Your task to perform on an android device: Open calendar and show me the fourth week of next month Image 0: 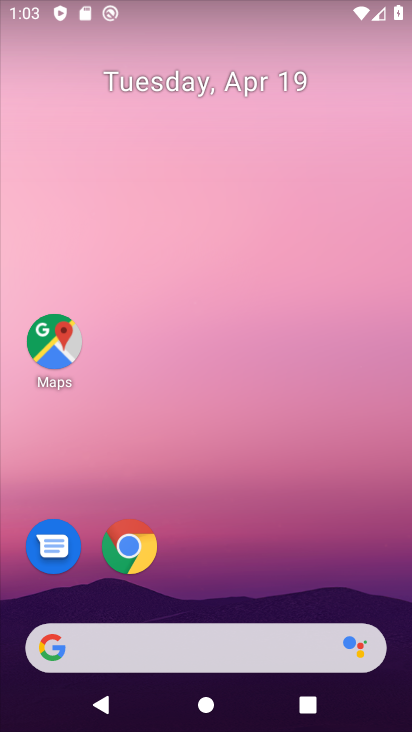
Step 0: drag from (222, 443) to (294, 33)
Your task to perform on an android device: Open calendar and show me the fourth week of next month Image 1: 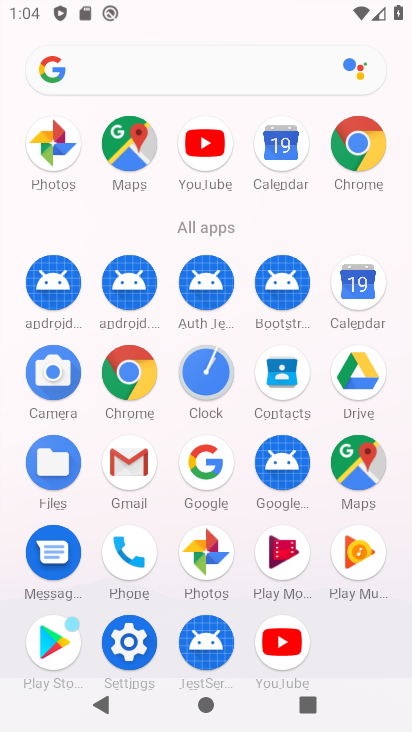
Step 1: click (371, 290)
Your task to perform on an android device: Open calendar and show me the fourth week of next month Image 2: 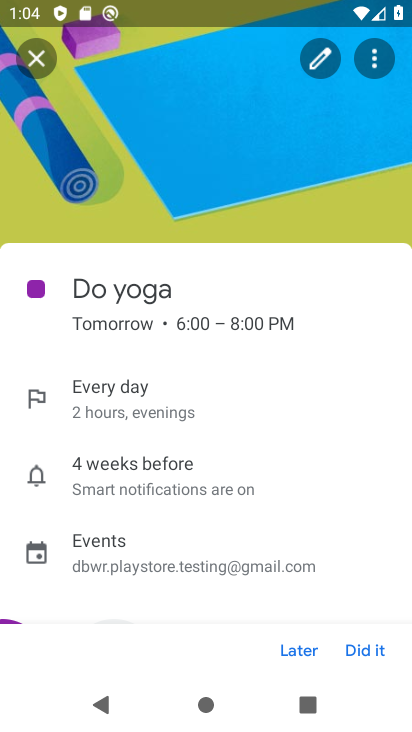
Step 2: press back button
Your task to perform on an android device: Open calendar and show me the fourth week of next month Image 3: 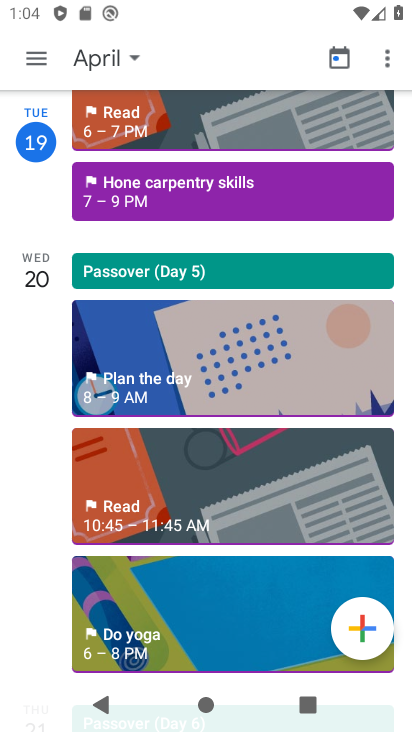
Step 3: click (134, 55)
Your task to perform on an android device: Open calendar and show me the fourth week of next month Image 4: 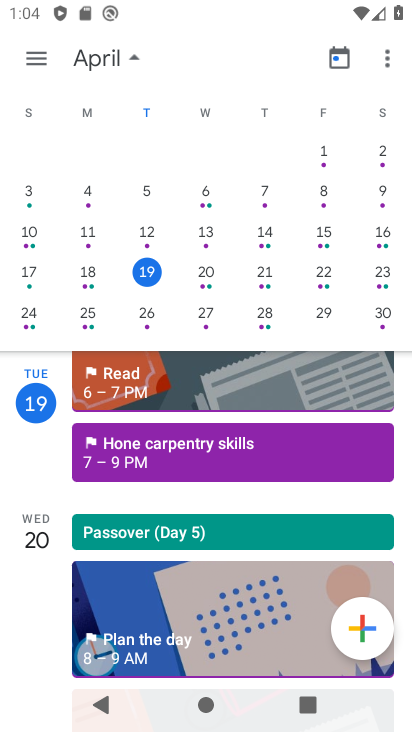
Step 4: drag from (357, 262) to (12, 242)
Your task to perform on an android device: Open calendar and show me the fourth week of next month Image 5: 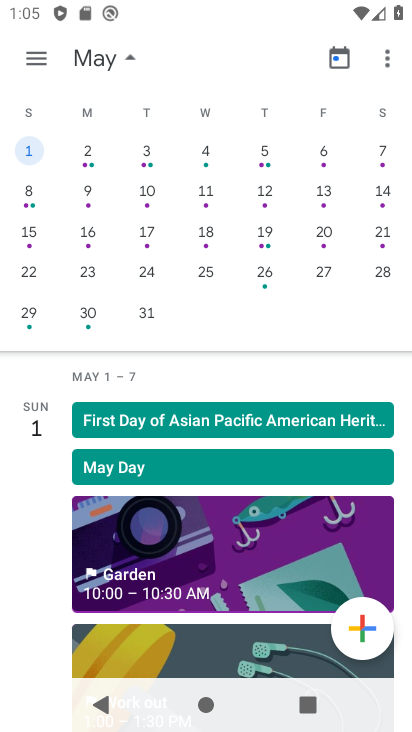
Step 5: click (89, 267)
Your task to perform on an android device: Open calendar and show me the fourth week of next month Image 6: 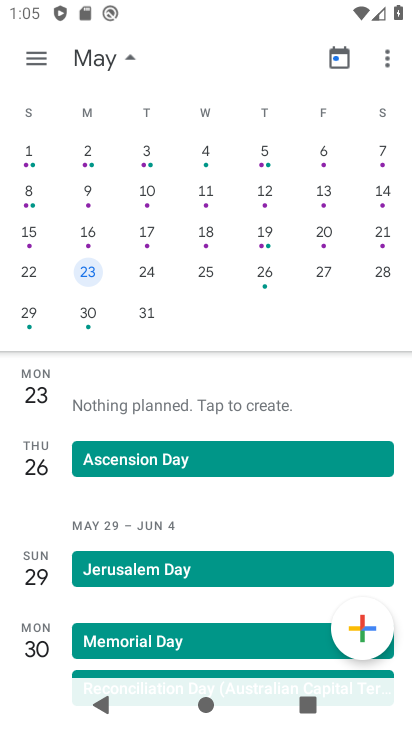
Step 6: drag from (203, 592) to (309, 53)
Your task to perform on an android device: Open calendar and show me the fourth week of next month Image 7: 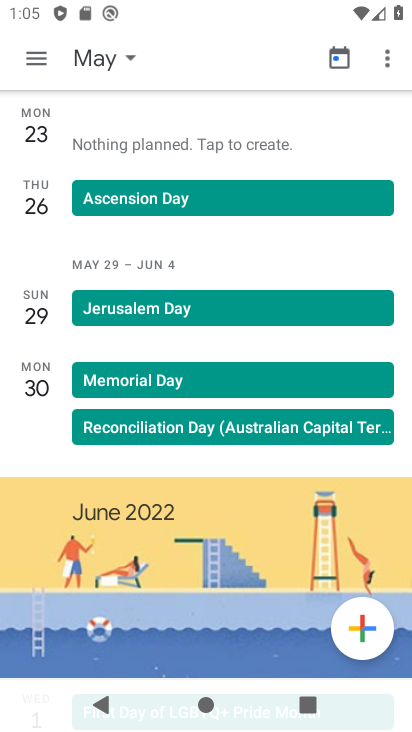
Step 7: drag from (209, 616) to (309, 139)
Your task to perform on an android device: Open calendar and show me the fourth week of next month Image 8: 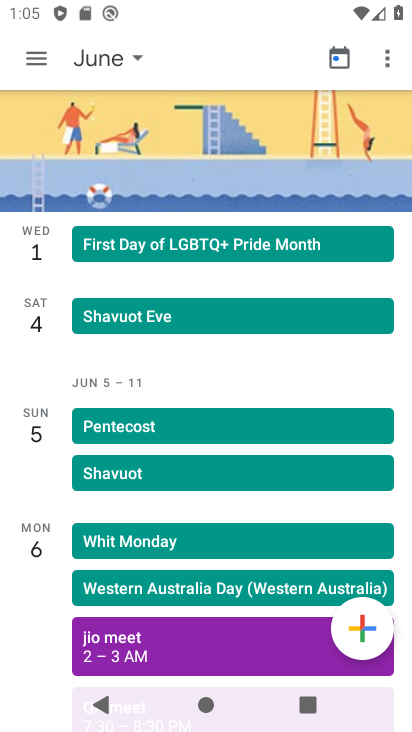
Step 8: click (116, 49)
Your task to perform on an android device: Open calendar and show me the fourth week of next month Image 9: 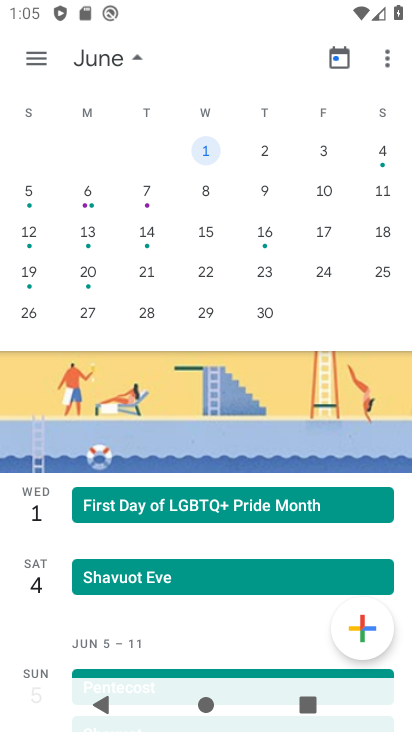
Step 9: drag from (82, 252) to (391, 247)
Your task to perform on an android device: Open calendar and show me the fourth week of next month Image 10: 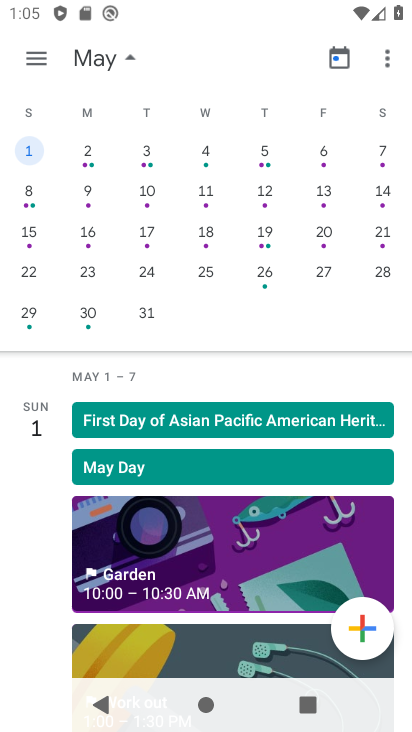
Step 10: click (86, 273)
Your task to perform on an android device: Open calendar and show me the fourth week of next month Image 11: 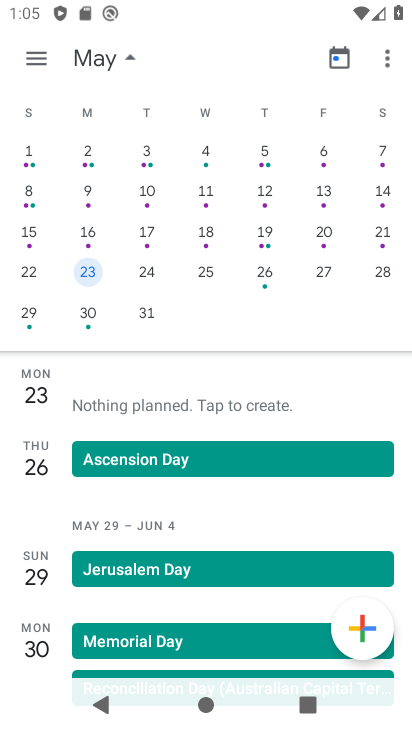
Step 11: task complete